Your task to perform on an android device: turn on the 24-hour format for clock Image 0: 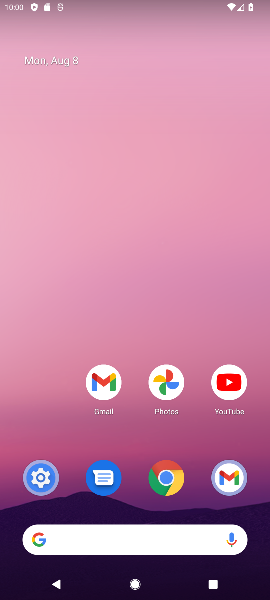
Step 0: drag from (137, 509) to (181, 17)
Your task to perform on an android device: turn on the 24-hour format for clock Image 1: 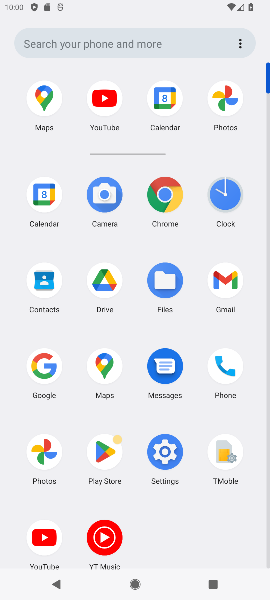
Step 1: click (218, 188)
Your task to perform on an android device: turn on the 24-hour format for clock Image 2: 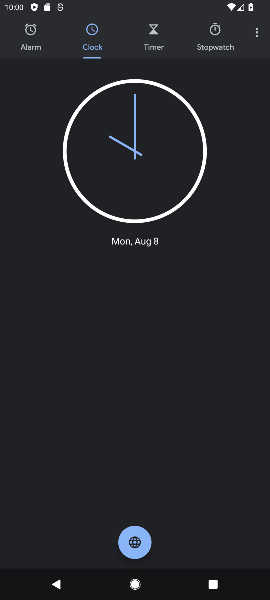
Step 2: drag from (255, 37) to (184, 67)
Your task to perform on an android device: turn on the 24-hour format for clock Image 3: 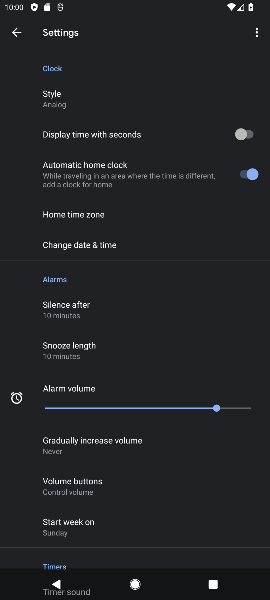
Step 3: click (78, 250)
Your task to perform on an android device: turn on the 24-hour format for clock Image 4: 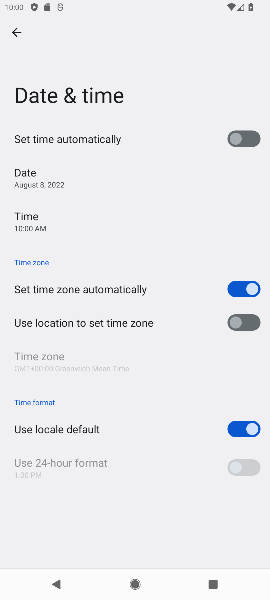
Step 4: click (253, 428)
Your task to perform on an android device: turn on the 24-hour format for clock Image 5: 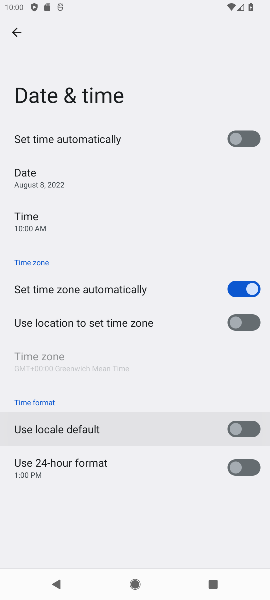
Step 5: click (238, 461)
Your task to perform on an android device: turn on the 24-hour format for clock Image 6: 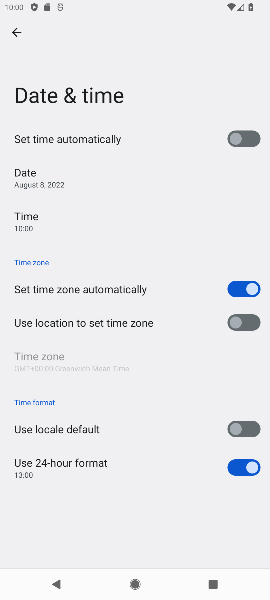
Step 6: task complete